Your task to perform on an android device: Find coffee shops on Maps Image 0: 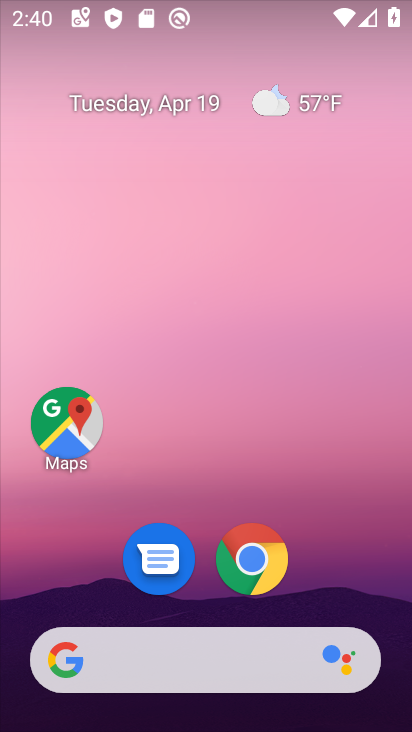
Step 0: drag from (204, 520) to (193, 126)
Your task to perform on an android device: Find coffee shops on Maps Image 1: 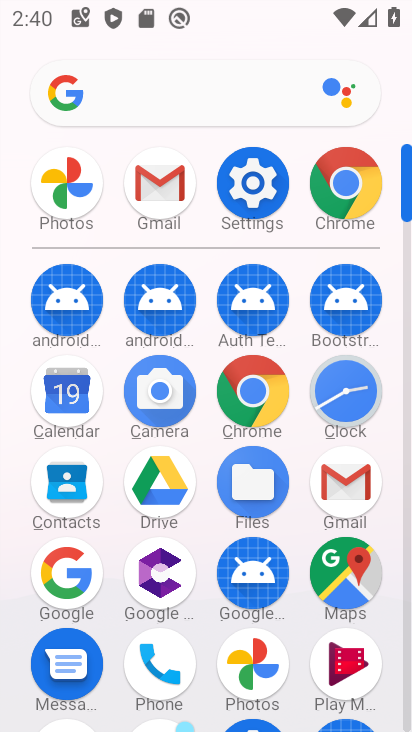
Step 1: click (347, 569)
Your task to perform on an android device: Find coffee shops on Maps Image 2: 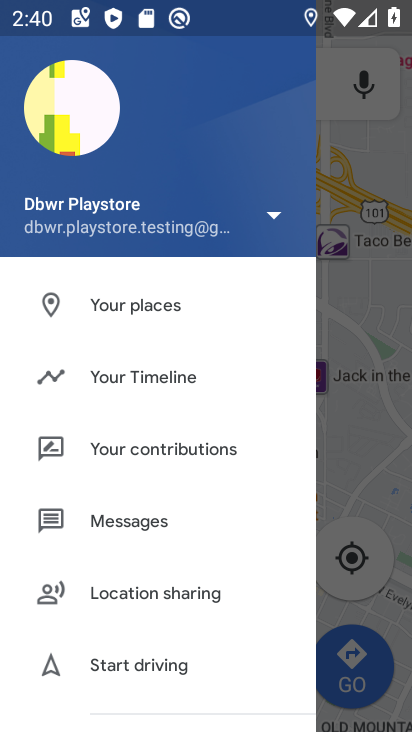
Step 2: click (344, 481)
Your task to perform on an android device: Find coffee shops on Maps Image 3: 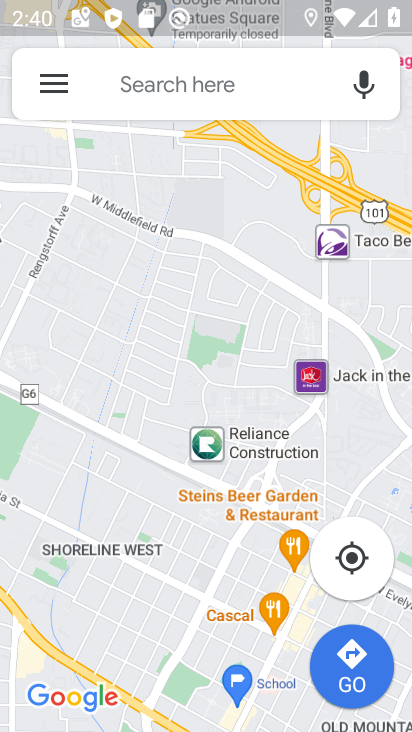
Step 3: click (148, 76)
Your task to perform on an android device: Find coffee shops on Maps Image 4: 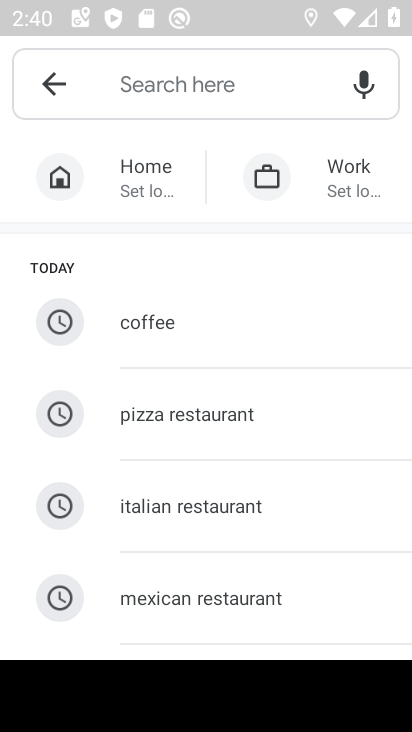
Step 4: click (169, 339)
Your task to perform on an android device: Find coffee shops on Maps Image 5: 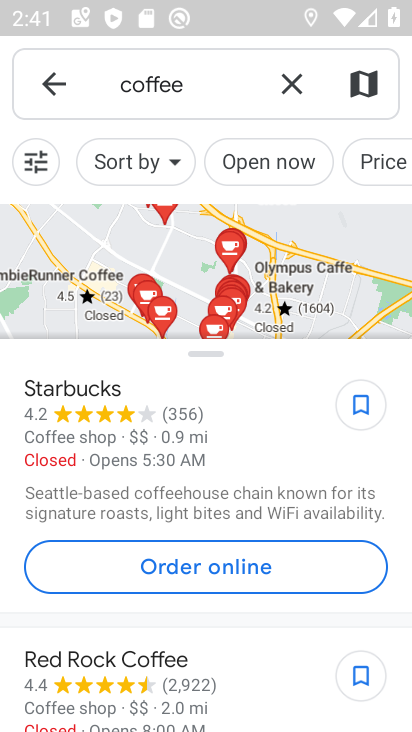
Step 5: task complete